Your task to perform on an android device: snooze an email in the gmail app Image 0: 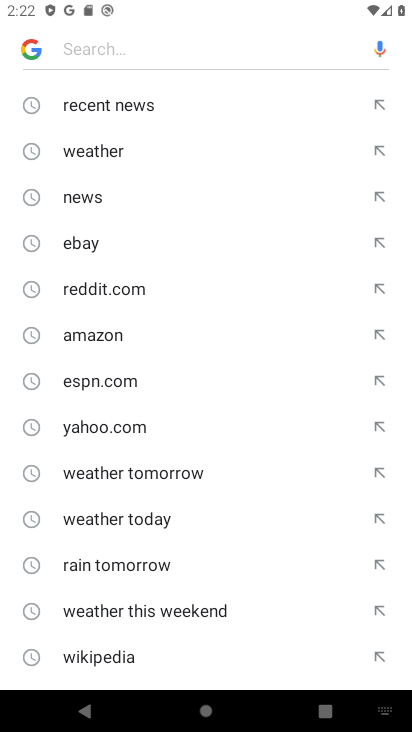
Step 0: press home button
Your task to perform on an android device: snooze an email in the gmail app Image 1: 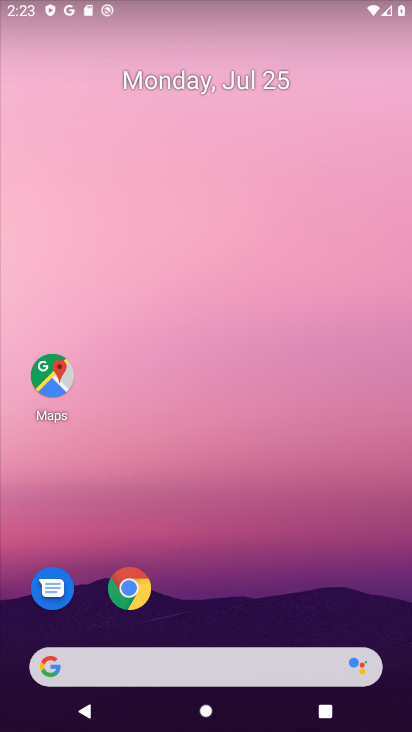
Step 1: drag from (208, 585) to (242, 42)
Your task to perform on an android device: snooze an email in the gmail app Image 2: 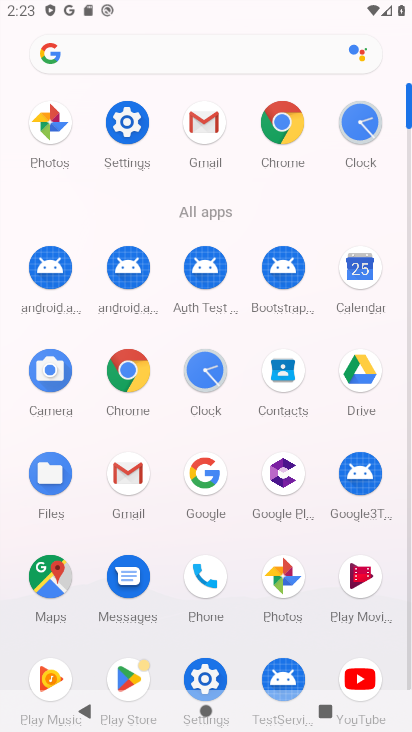
Step 2: click (205, 117)
Your task to perform on an android device: snooze an email in the gmail app Image 3: 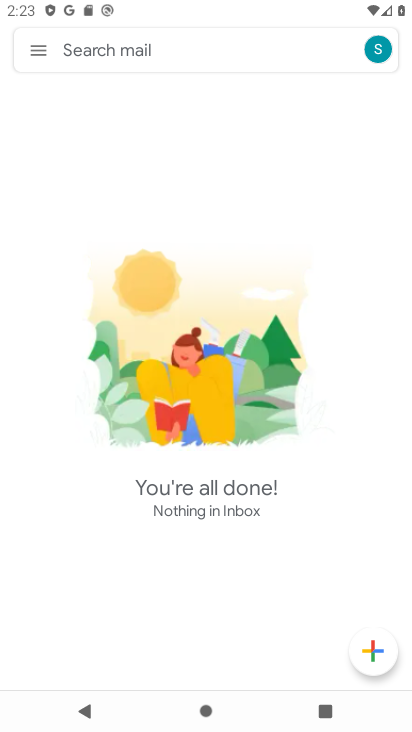
Step 3: task complete